Your task to perform on an android device: make emails show in primary in the gmail app Image 0: 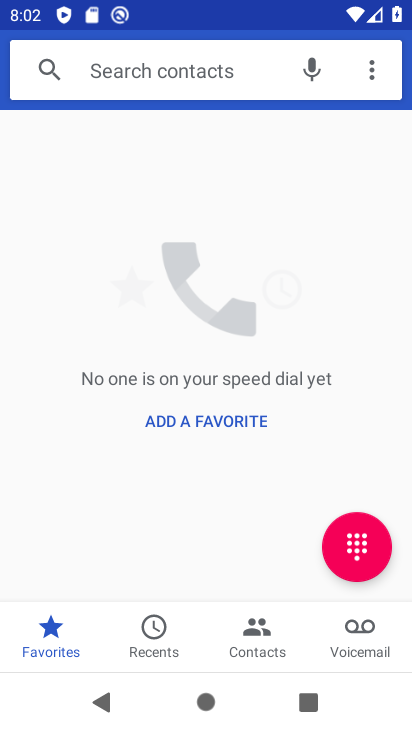
Step 0: press home button
Your task to perform on an android device: make emails show in primary in the gmail app Image 1: 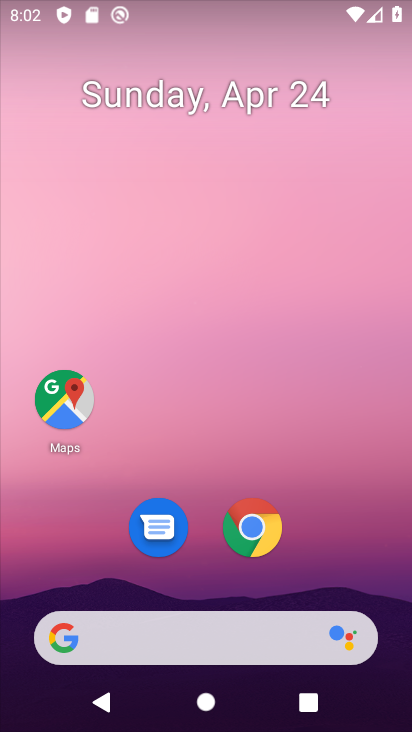
Step 1: drag from (381, 587) to (391, 1)
Your task to perform on an android device: make emails show in primary in the gmail app Image 2: 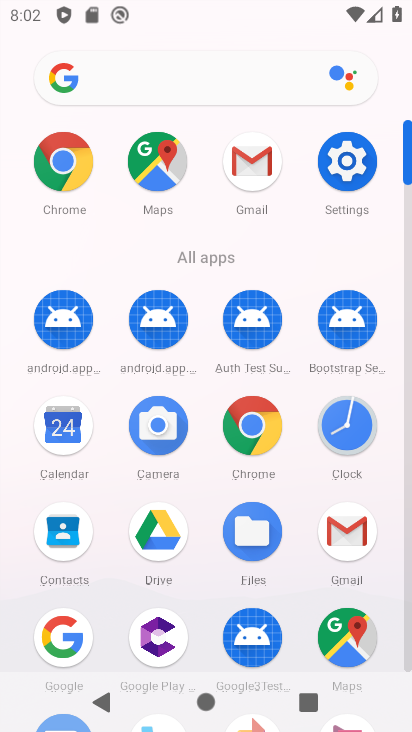
Step 2: click (251, 160)
Your task to perform on an android device: make emails show in primary in the gmail app Image 3: 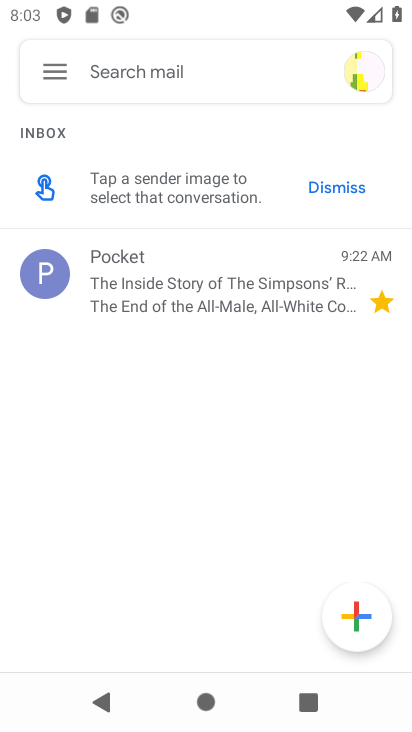
Step 3: click (56, 69)
Your task to perform on an android device: make emails show in primary in the gmail app Image 4: 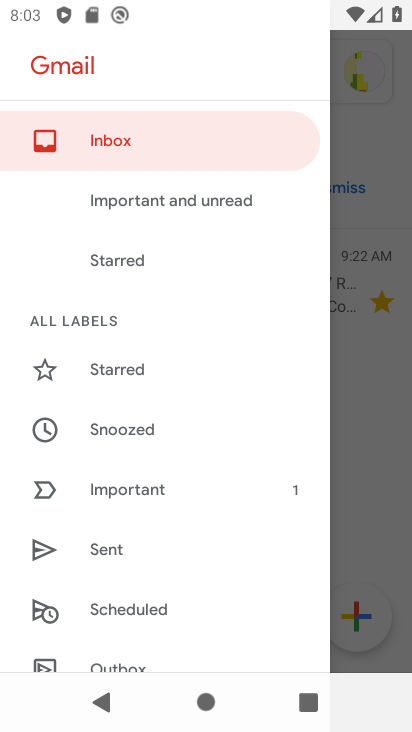
Step 4: drag from (212, 617) to (190, 88)
Your task to perform on an android device: make emails show in primary in the gmail app Image 5: 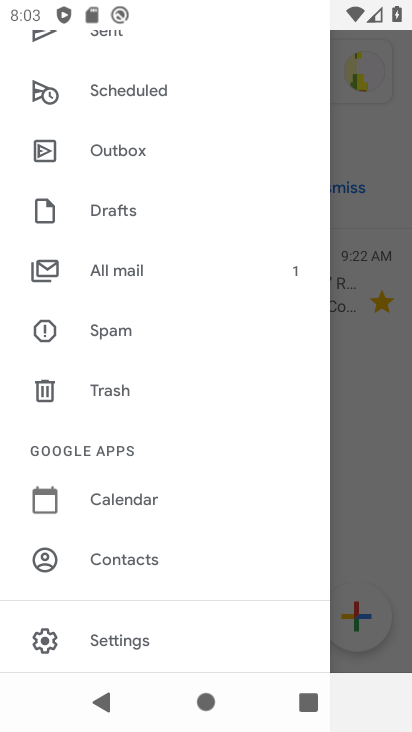
Step 5: drag from (184, 538) to (169, 164)
Your task to perform on an android device: make emails show in primary in the gmail app Image 6: 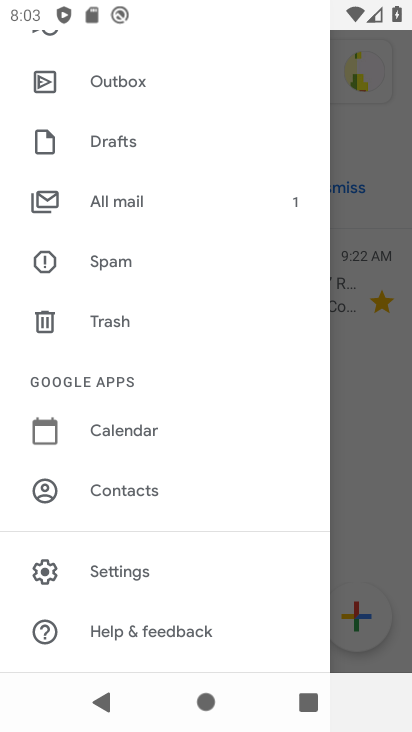
Step 6: click (112, 572)
Your task to perform on an android device: make emails show in primary in the gmail app Image 7: 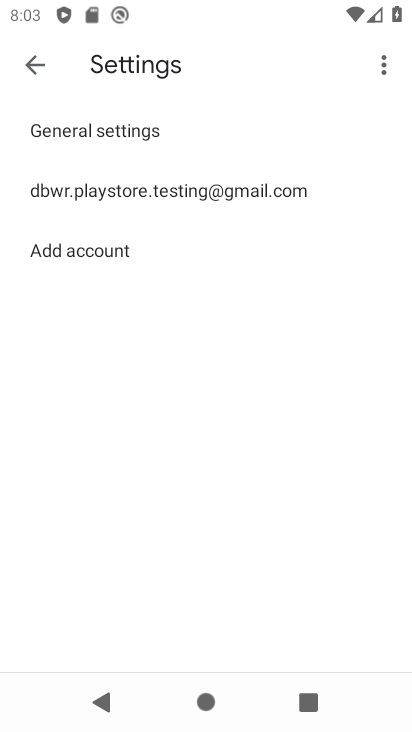
Step 7: click (123, 197)
Your task to perform on an android device: make emails show in primary in the gmail app Image 8: 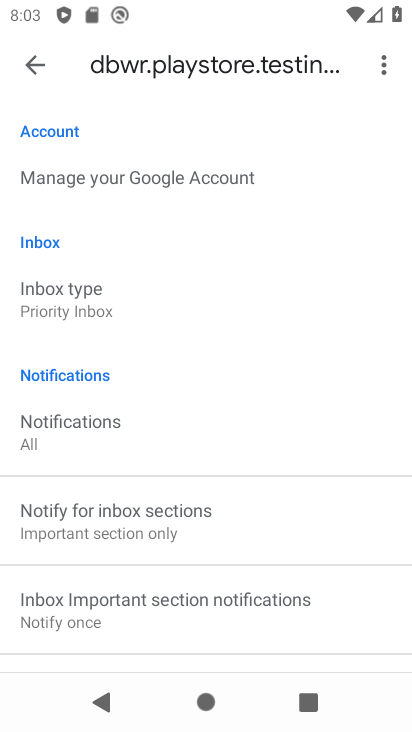
Step 8: task complete